Your task to perform on an android device: turn notification dots on Image 0: 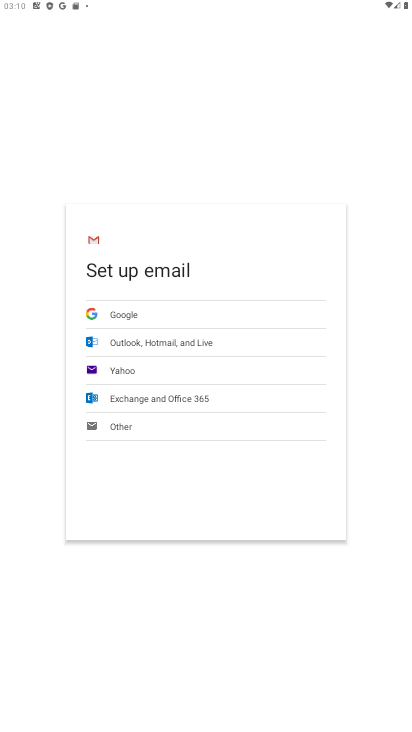
Step 0: press home button
Your task to perform on an android device: turn notification dots on Image 1: 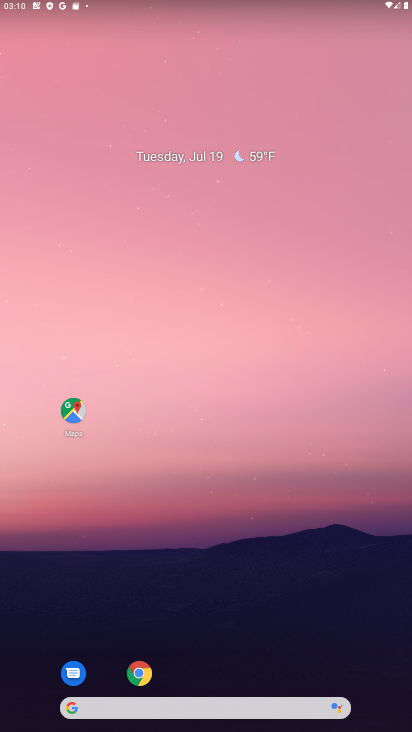
Step 1: drag from (201, 681) to (303, 19)
Your task to perform on an android device: turn notification dots on Image 2: 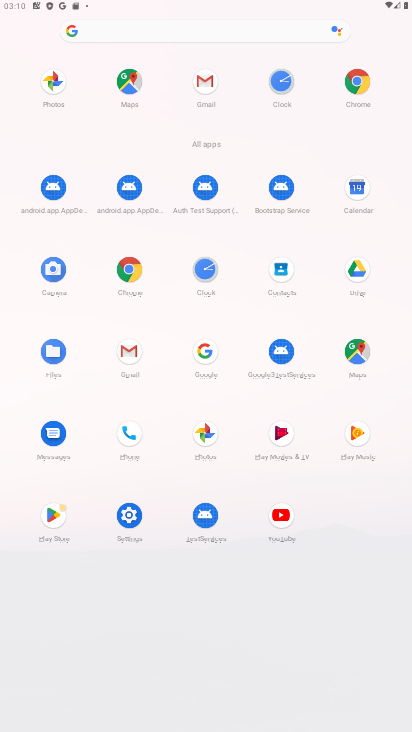
Step 2: click (126, 506)
Your task to perform on an android device: turn notification dots on Image 3: 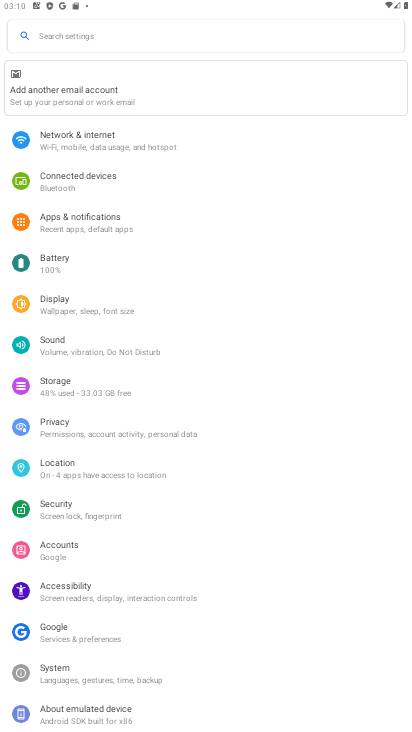
Step 3: click (105, 225)
Your task to perform on an android device: turn notification dots on Image 4: 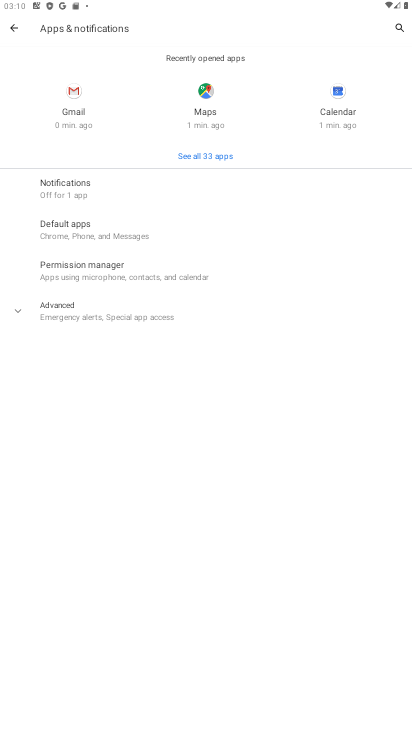
Step 4: click (95, 182)
Your task to perform on an android device: turn notification dots on Image 5: 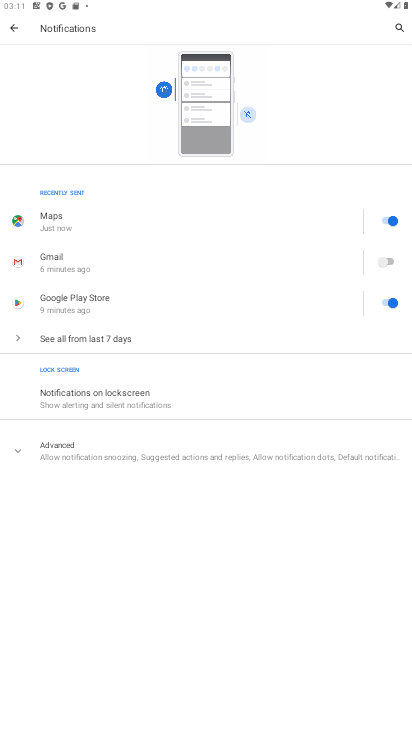
Step 5: click (35, 451)
Your task to perform on an android device: turn notification dots on Image 6: 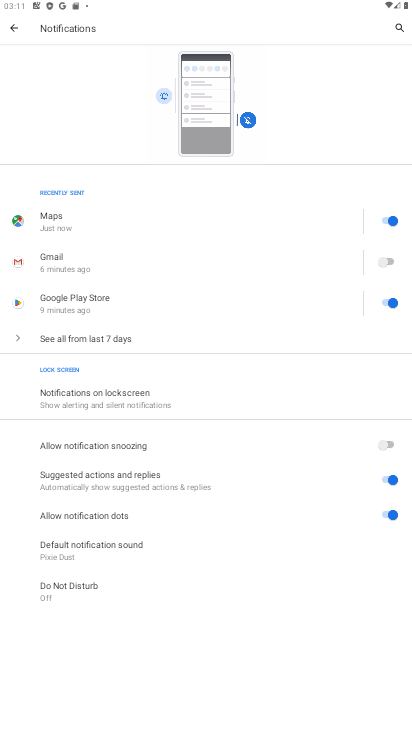
Step 6: task complete